Your task to perform on an android device: set an alarm Image 0: 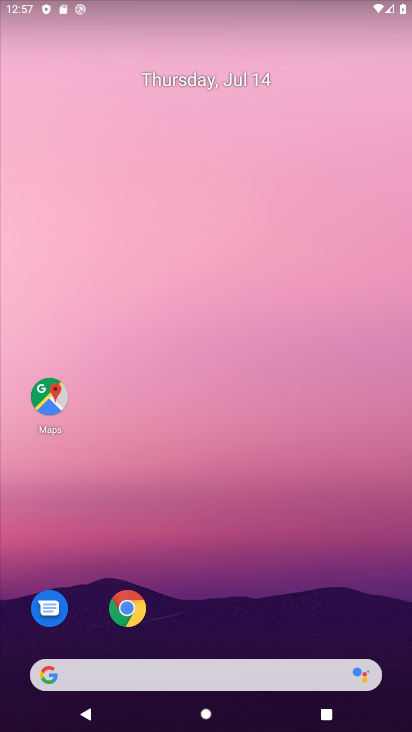
Step 0: drag from (267, 608) to (254, 14)
Your task to perform on an android device: set an alarm Image 1: 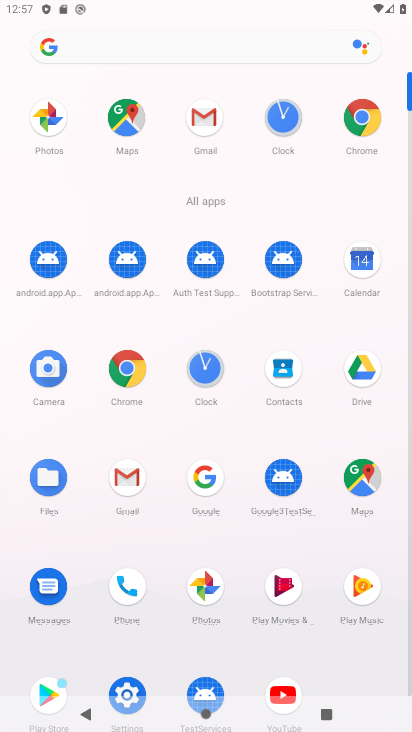
Step 1: click (281, 113)
Your task to perform on an android device: set an alarm Image 2: 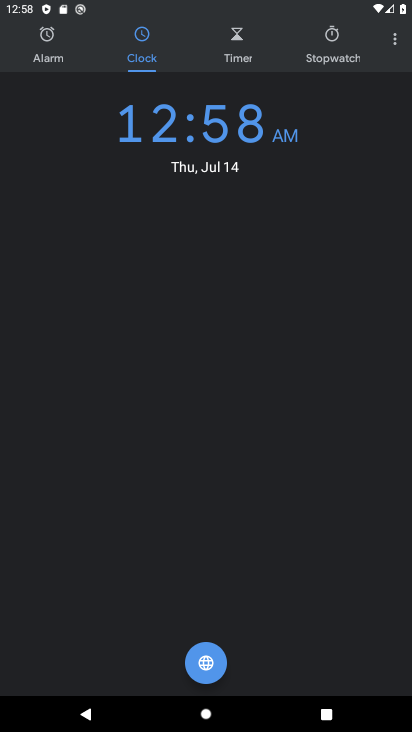
Step 2: click (45, 45)
Your task to perform on an android device: set an alarm Image 3: 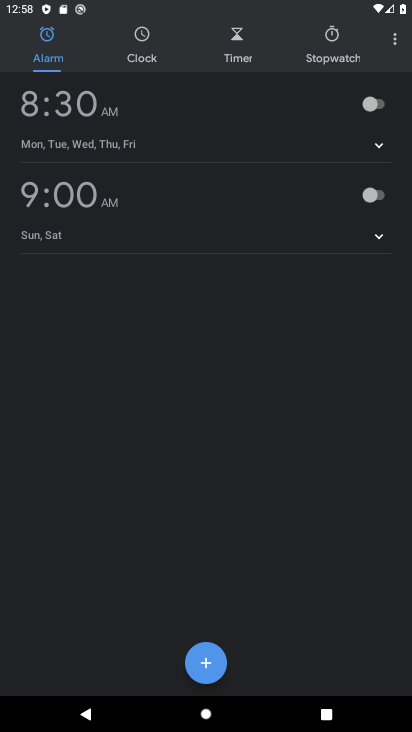
Step 3: click (221, 661)
Your task to perform on an android device: set an alarm Image 4: 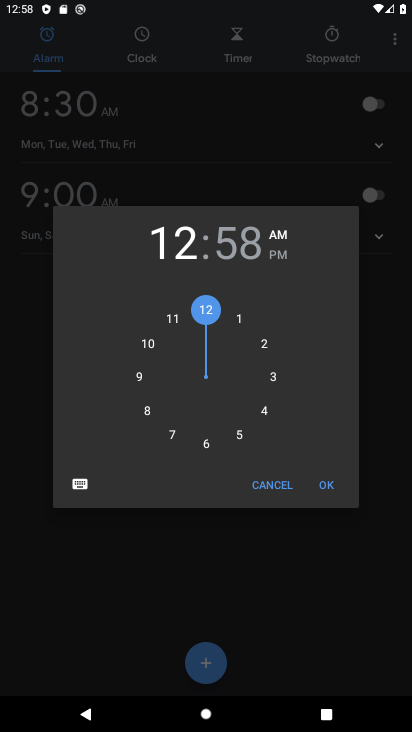
Step 4: click (240, 427)
Your task to perform on an android device: set an alarm Image 5: 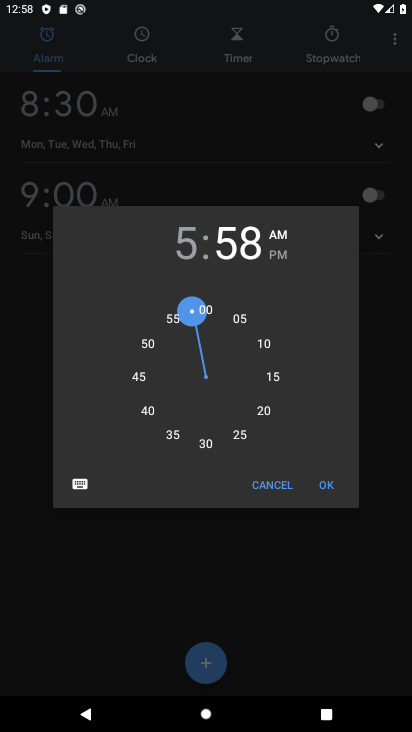
Step 5: click (201, 442)
Your task to perform on an android device: set an alarm Image 6: 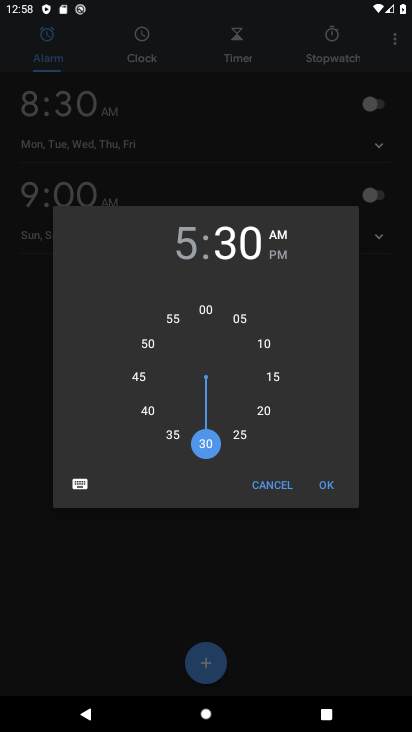
Step 6: click (326, 479)
Your task to perform on an android device: set an alarm Image 7: 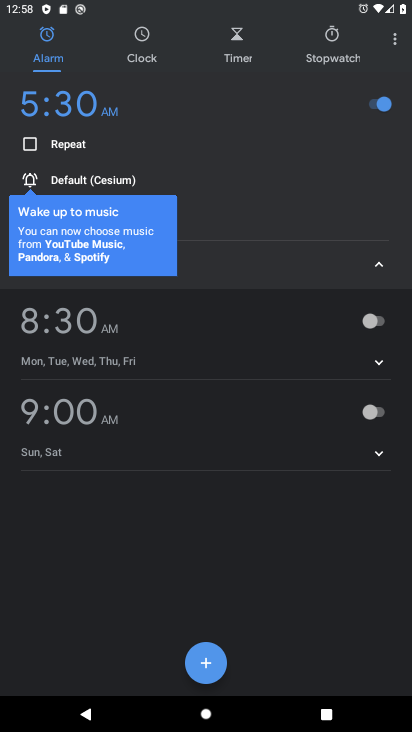
Step 7: task complete